Your task to perform on an android device: Do I have any events this weekend? Image 0: 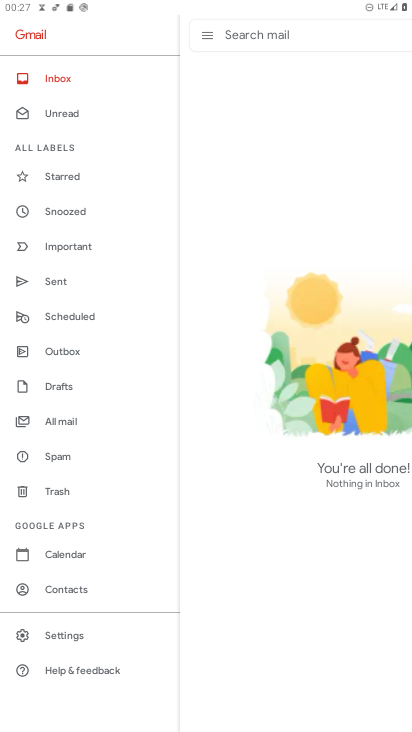
Step 0: press home button
Your task to perform on an android device: Do I have any events this weekend? Image 1: 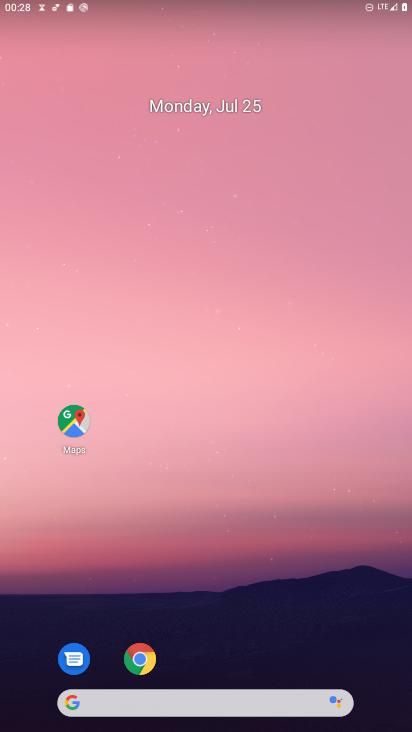
Step 1: drag from (223, 685) to (227, 4)
Your task to perform on an android device: Do I have any events this weekend? Image 2: 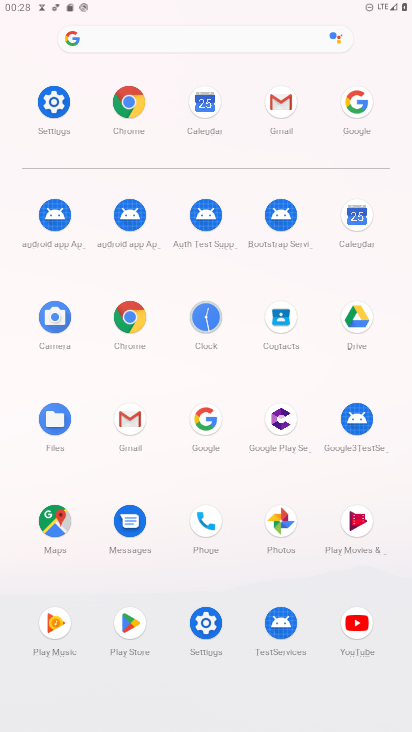
Step 2: click (214, 92)
Your task to perform on an android device: Do I have any events this weekend? Image 3: 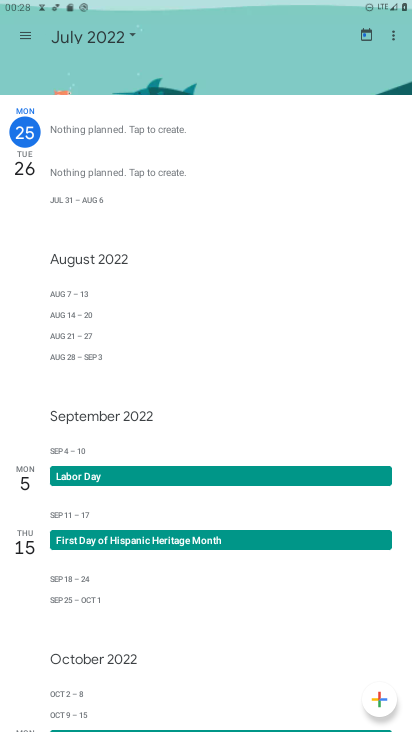
Step 3: click (39, 32)
Your task to perform on an android device: Do I have any events this weekend? Image 4: 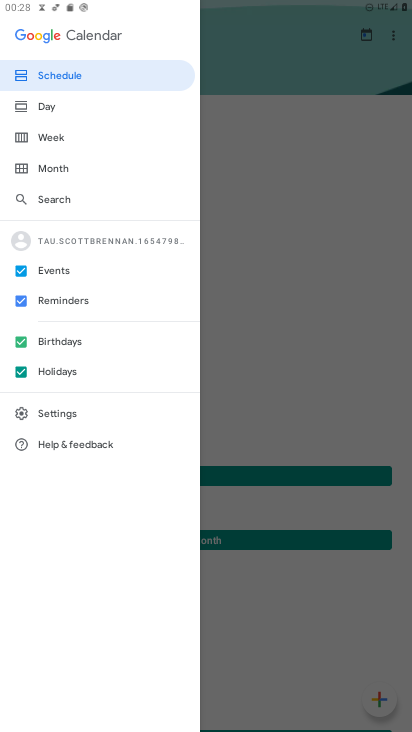
Step 4: click (66, 136)
Your task to perform on an android device: Do I have any events this weekend? Image 5: 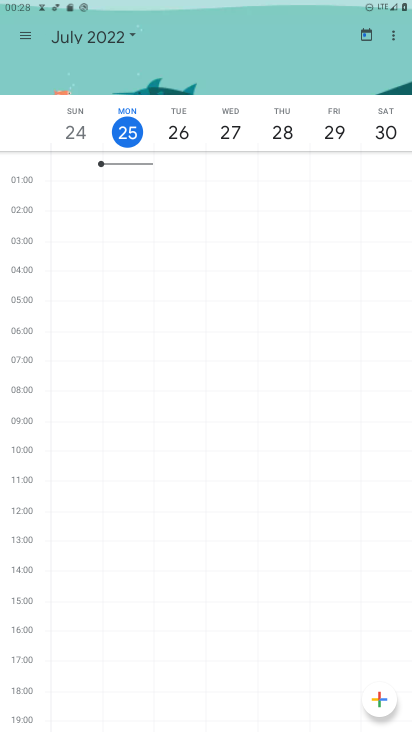
Step 5: task complete